Your task to perform on an android device: Open the phone app and click the voicemail tab. Image 0: 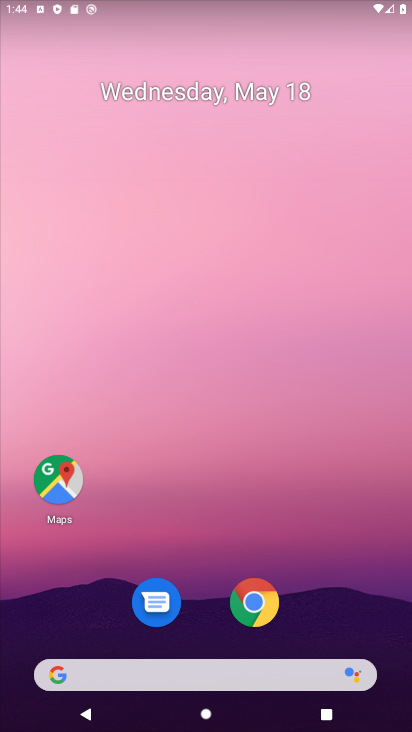
Step 0: drag from (253, 614) to (272, 38)
Your task to perform on an android device: Open the phone app and click the voicemail tab. Image 1: 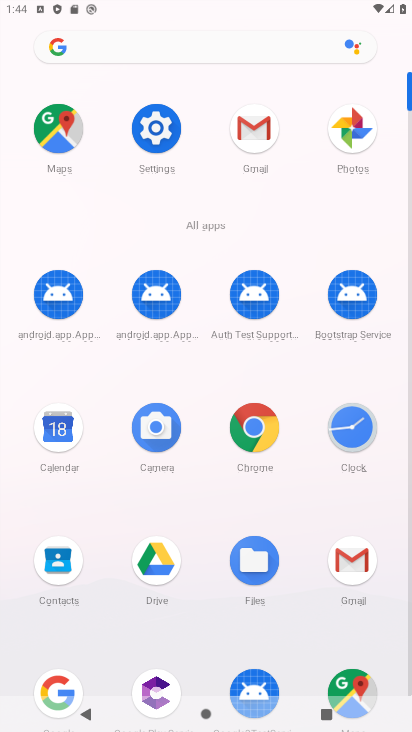
Step 1: drag from (153, 570) to (117, 7)
Your task to perform on an android device: Open the phone app and click the voicemail tab. Image 2: 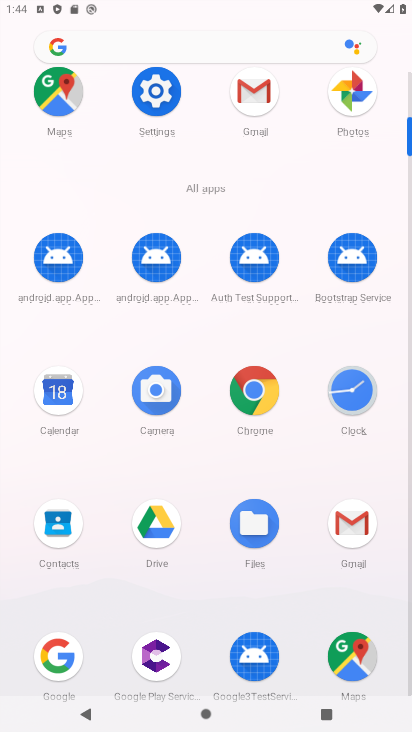
Step 2: drag from (261, 620) to (156, 83)
Your task to perform on an android device: Open the phone app and click the voicemail tab. Image 3: 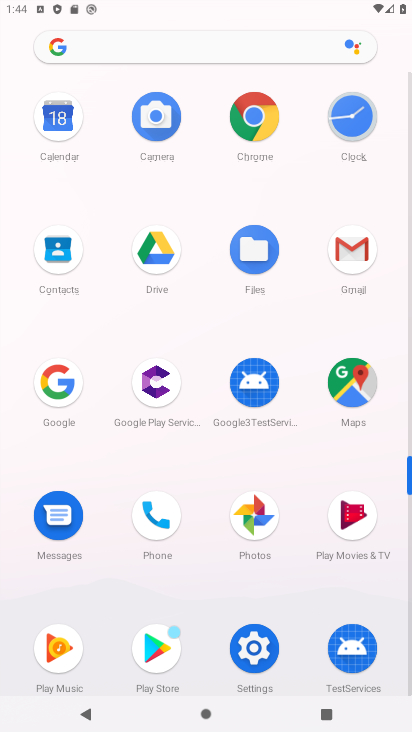
Step 3: click (158, 527)
Your task to perform on an android device: Open the phone app and click the voicemail tab. Image 4: 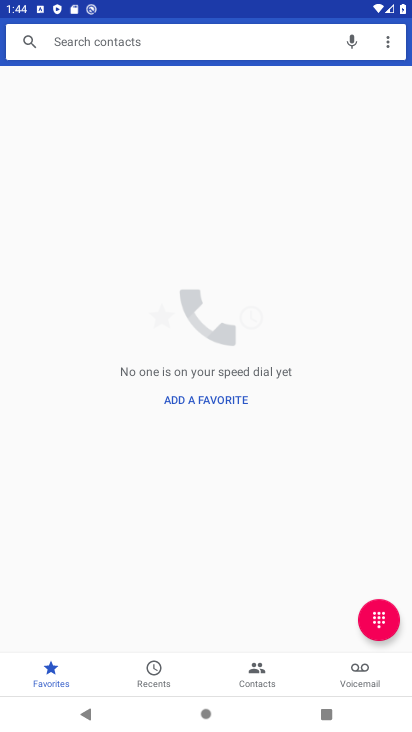
Step 4: click (364, 676)
Your task to perform on an android device: Open the phone app and click the voicemail tab. Image 5: 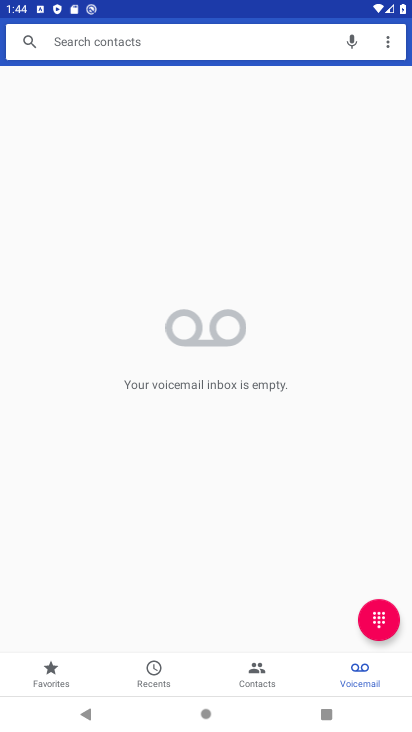
Step 5: task complete